Your task to perform on an android device: Open eBay Image 0: 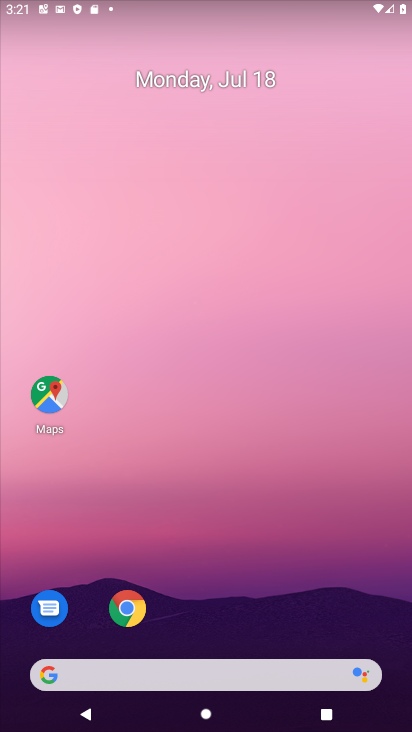
Step 0: drag from (225, 619) to (248, 219)
Your task to perform on an android device: Open eBay Image 1: 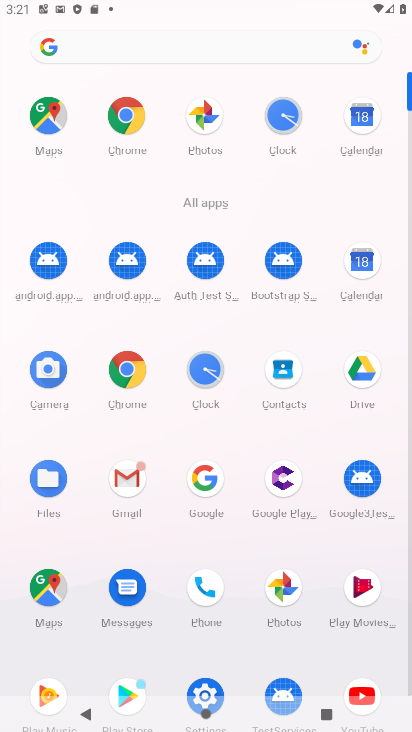
Step 1: click (139, 385)
Your task to perform on an android device: Open eBay Image 2: 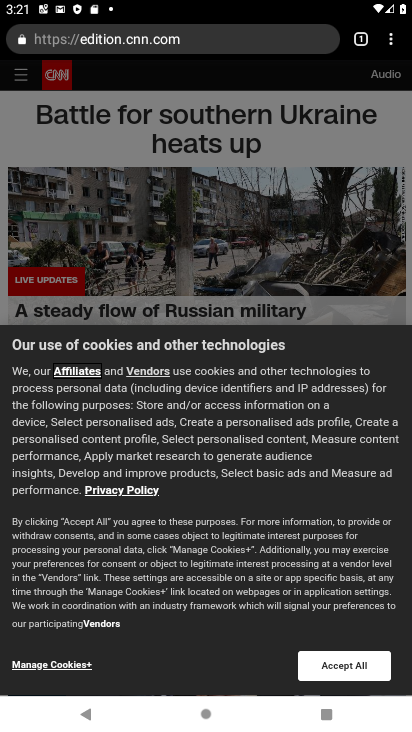
Step 2: click (235, 37)
Your task to perform on an android device: Open eBay Image 3: 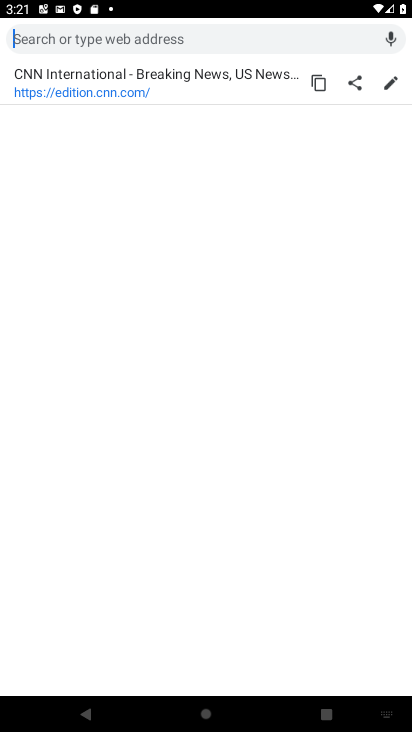
Step 3: type "ebay"
Your task to perform on an android device: Open eBay Image 4: 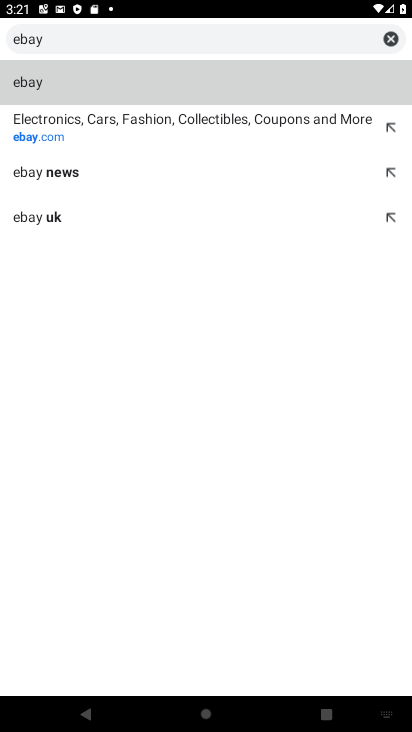
Step 4: click (185, 145)
Your task to perform on an android device: Open eBay Image 5: 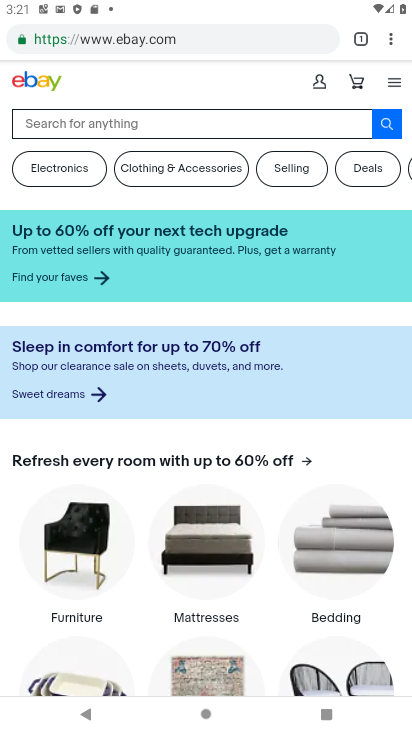
Step 5: task complete